Your task to perform on an android device: turn on improve location accuracy Image 0: 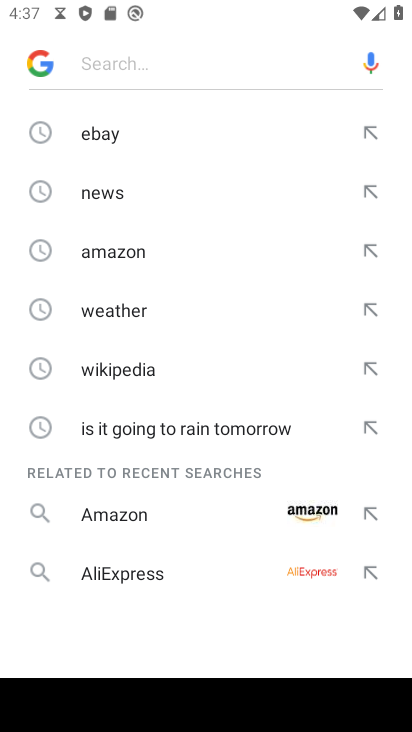
Step 0: press home button
Your task to perform on an android device: turn on improve location accuracy Image 1: 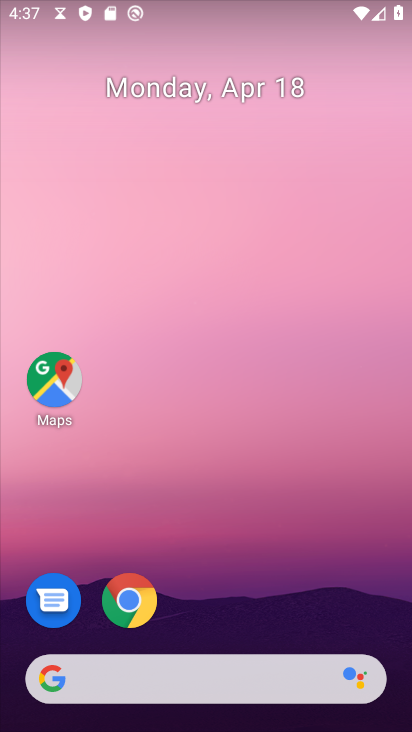
Step 1: drag from (199, 454) to (307, 0)
Your task to perform on an android device: turn on improve location accuracy Image 2: 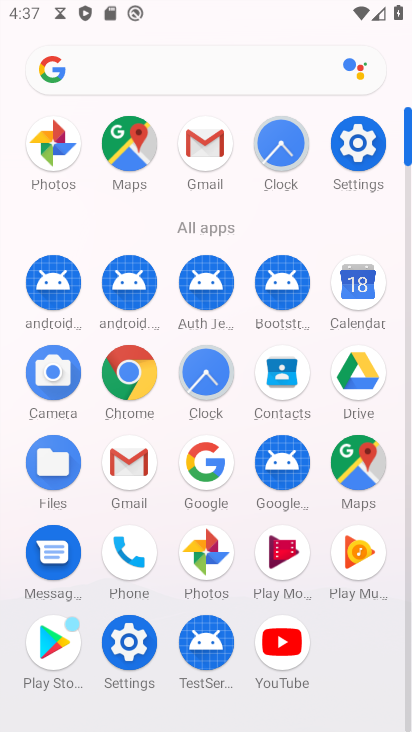
Step 2: click (356, 136)
Your task to perform on an android device: turn on improve location accuracy Image 3: 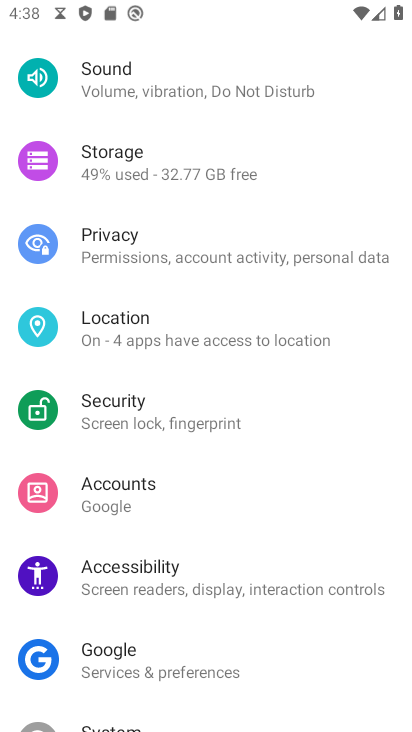
Step 3: click (177, 334)
Your task to perform on an android device: turn on improve location accuracy Image 4: 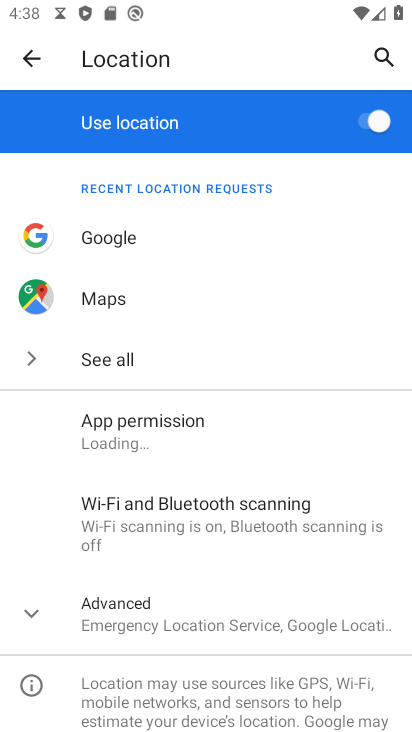
Step 4: click (187, 595)
Your task to perform on an android device: turn on improve location accuracy Image 5: 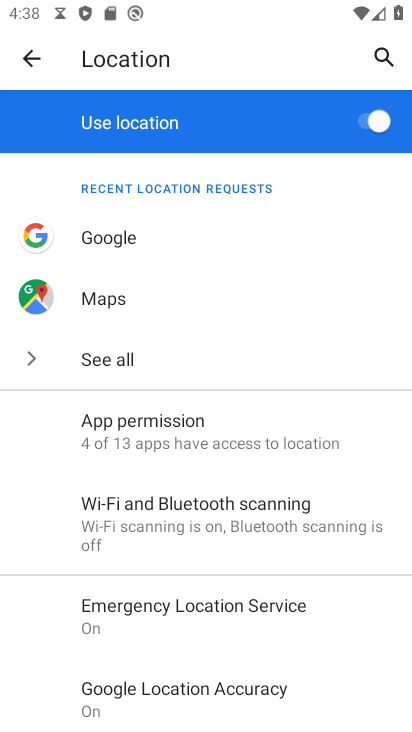
Step 5: click (196, 684)
Your task to perform on an android device: turn on improve location accuracy Image 6: 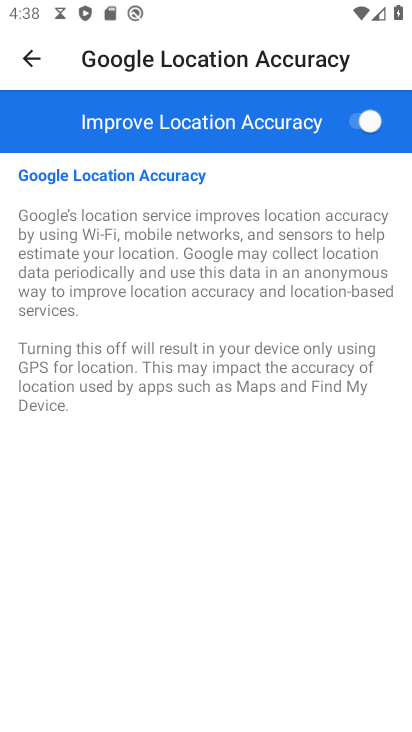
Step 6: task complete